Your task to perform on an android device: turn on data saver in the chrome app Image 0: 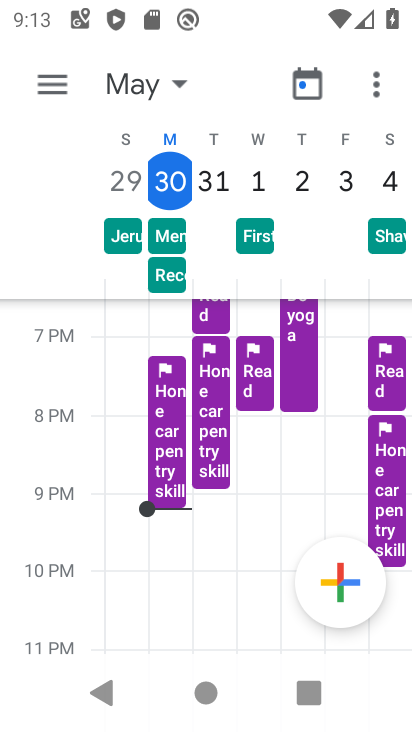
Step 0: task complete